Your task to perform on an android device: Search for Mexican restaurants on Maps Image 0: 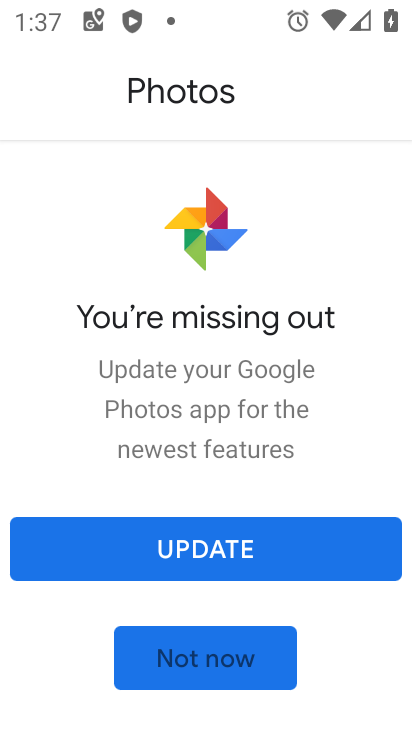
Step 0: press home button
Your task to perform on an android device: Search for Mexican restaurants on Maps Image 1: 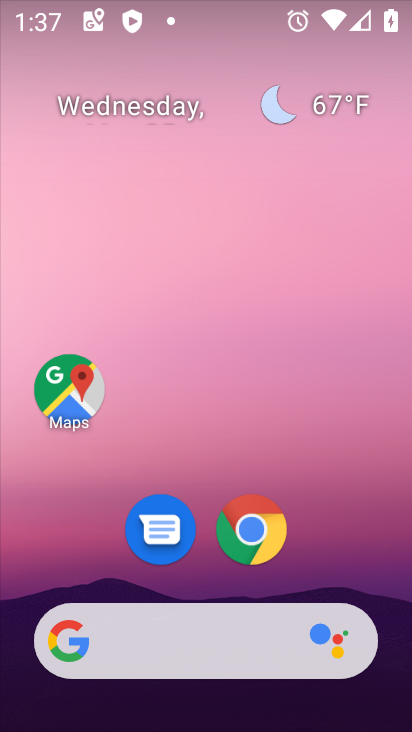
Step 1: click (71, 391)
Your task to perform on an android device: Search for Mexican restaurants on Maps Image 2: 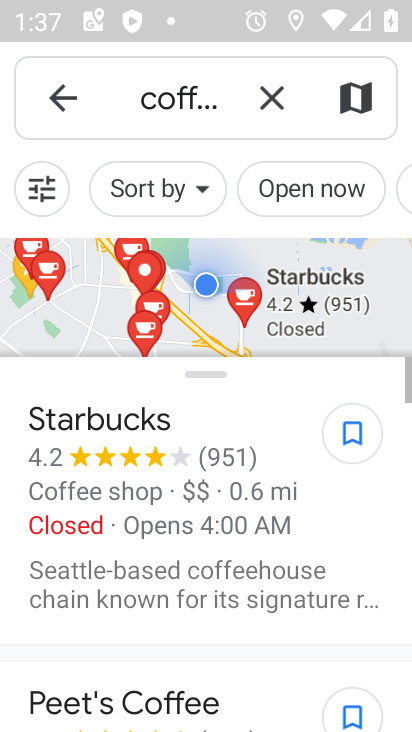
Step 2: click (269, 95)
Your task to perform on an android device: Search for Mexican restaurants on Maps Image 3: 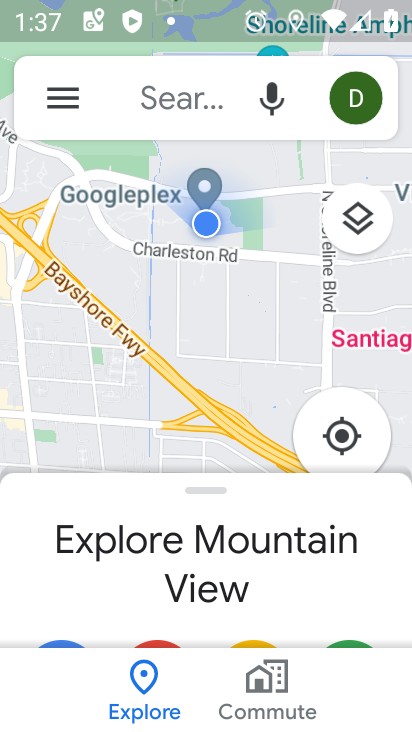
Step 3: click (206, 104)
Your task to perform on an android device: Search for Mexican restaurants on Maps Image 4: 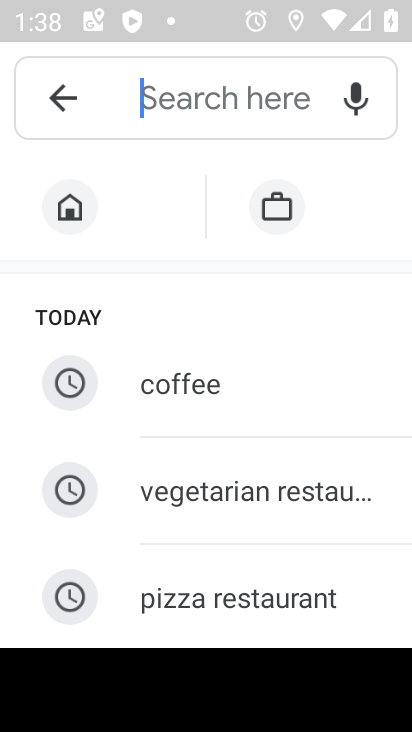
Step 4: type "Mexican restaurants"
Your task to perform on an android device: Search for Mexican restaurants on Maps Image 5: 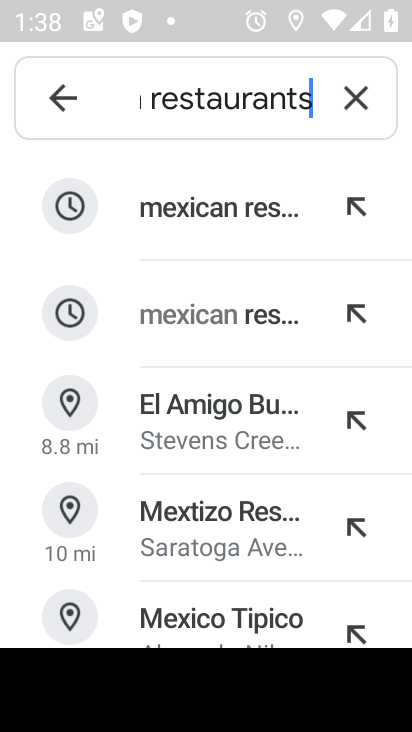
Step 5: click (262, 216)
Your task to perform on an android device: Search for Mexican restaurants on Maps Image 6: 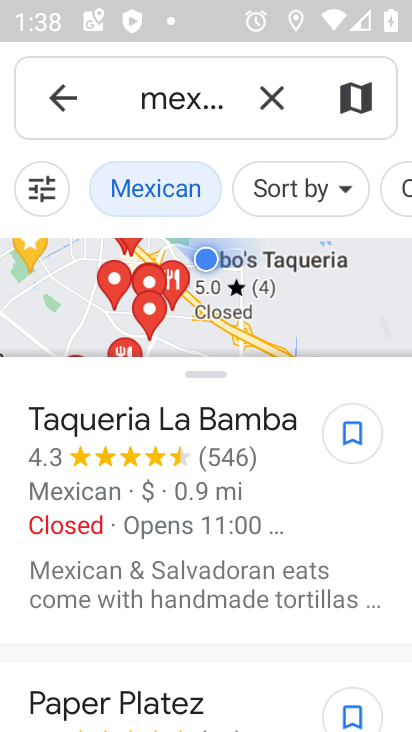
Step 6: task complete